Your task to perform on an android device: delete a single message in the gmail app Image 0: 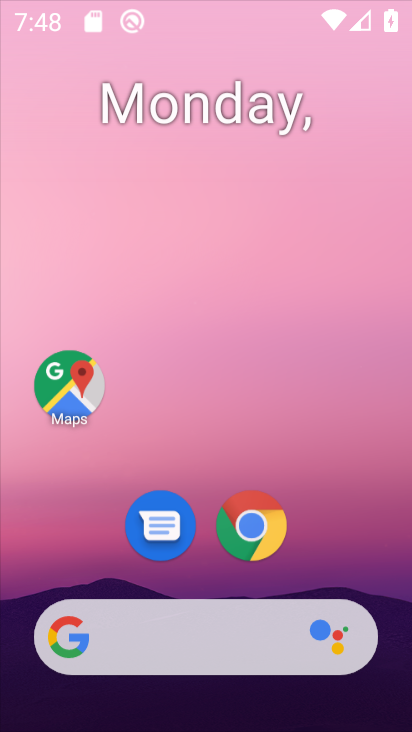
Step 0: click (194, 214)
Your task to perform on an android device: delete a single message in the gmail app Image 1: 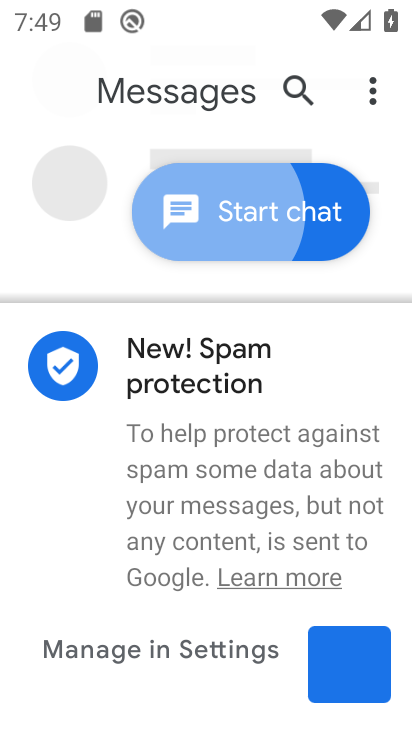
Step 1: drag from (216, 591) to (216, 269)
Your task to perform on an android device: delete a single message in the gmail app Image 2: 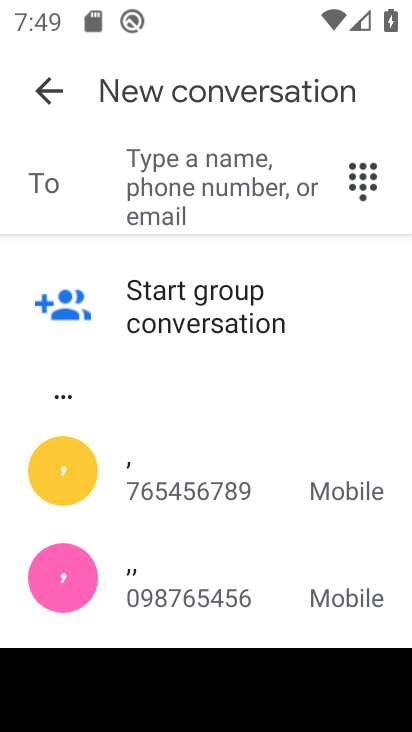
Step 2: press home button
Your task to perform on an android device: delete a single message in the gmail app Image 3: 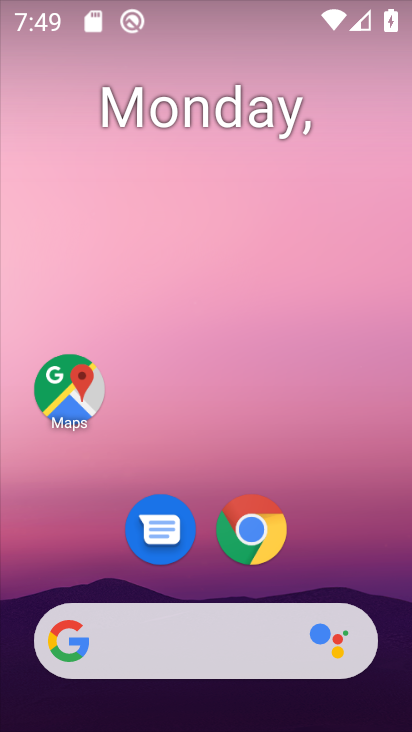
Step 3: drag from (203, 587) to (211, 240)
Your task to perform on an android device: delete a single message in the gmail app Image 4: 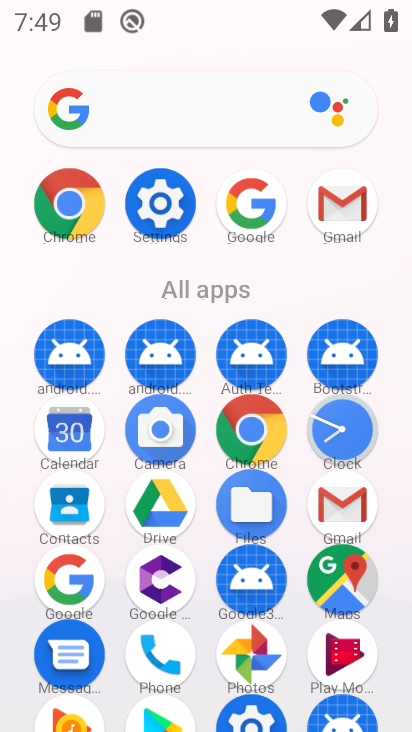
Step 4: click (333, 516)
Your task to perform on an android device: delete a single message in the gmail app Image 5: 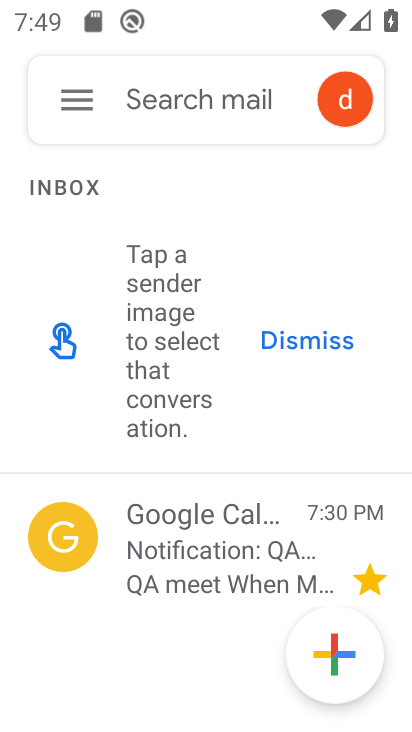
Step 5: click (238, 563)
Your task to perform on an android device: delete a single message in the gmail app Image 6: 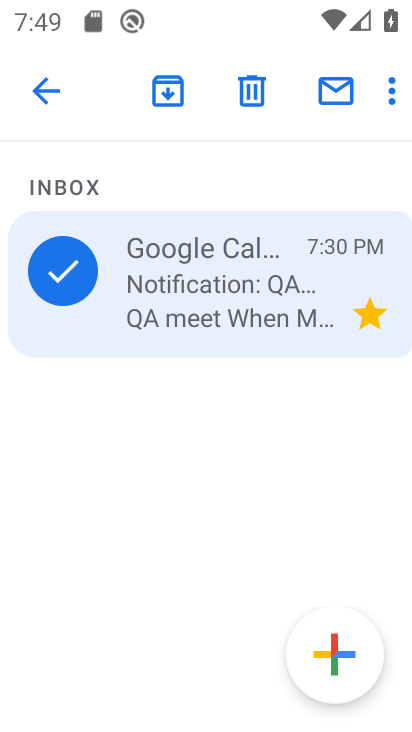
Step 6: click (246, 82)
Your task to perform on an android device: delete a single message in the gmail app Image 7: 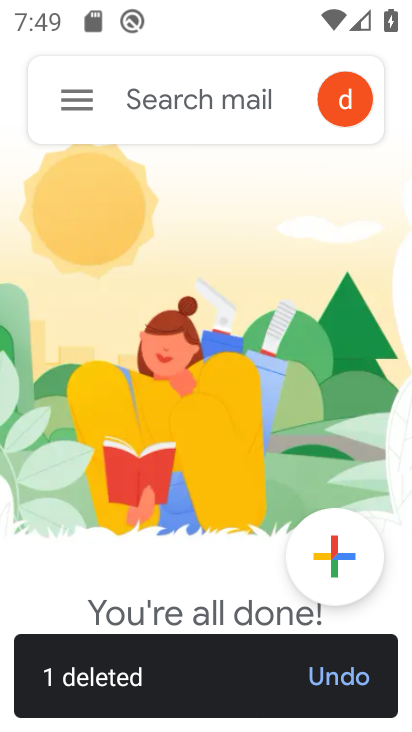
Step 7: task complete